Your task to perform on an android device: Open the stopwatch Image 0: 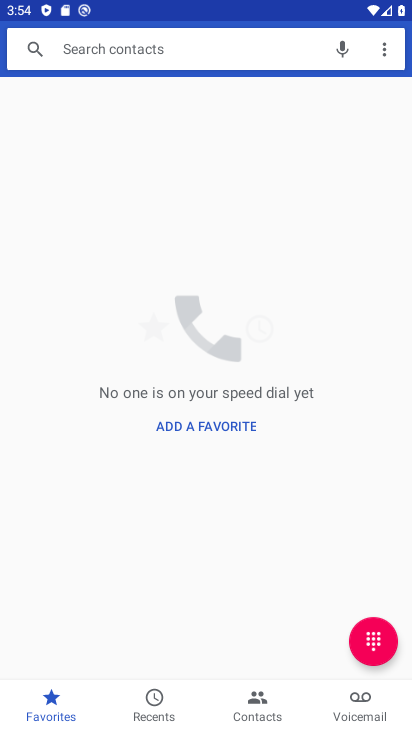
Step 0: press back button
Your task to perform on an android device: Open the stopwatch Image 1: 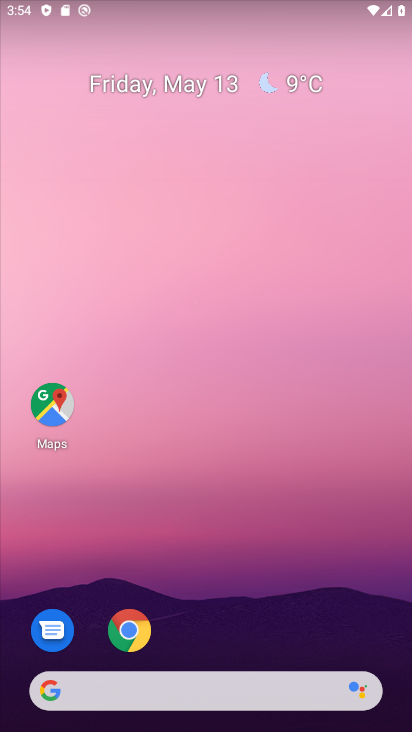
Step 1: drag from (254, 585) to (191, 16)
Your task to perform on an android device: Open the stopwatch Image 2: 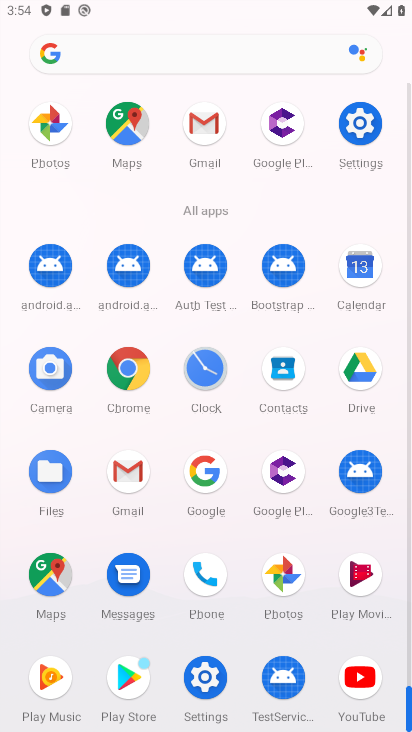
Step 2: drag from (10, 571) to (30, 272)
Your task to perform on an android device: Open the stopwatch Image 3: 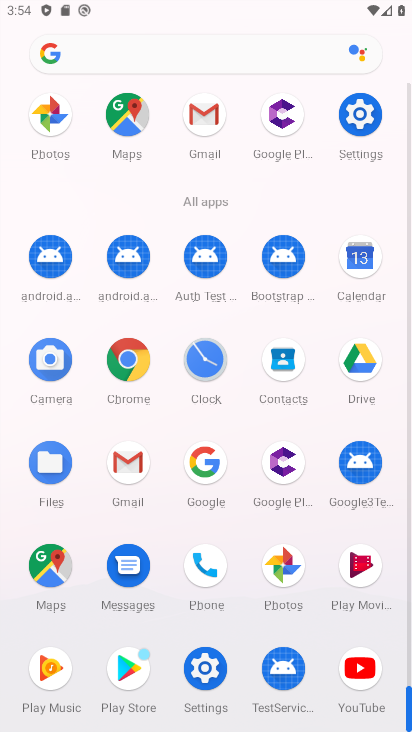
Step 3: click (209, 357)
Your task to perform on an android device: Open the stopwatch Image 4: 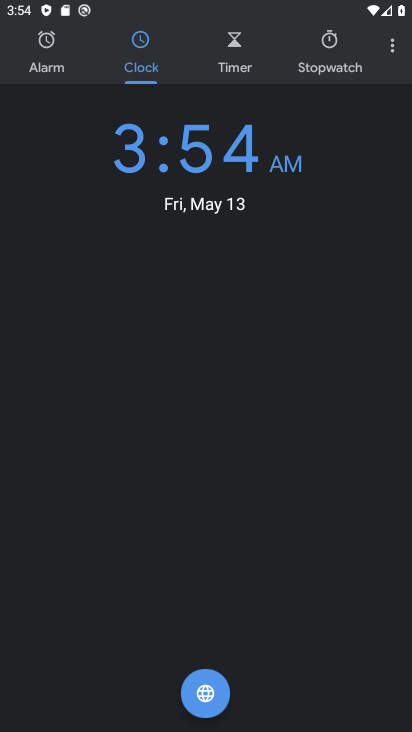
Step 4: click (320, 57)
Your task to perform on an android device: Open the stopwatch Image 5: 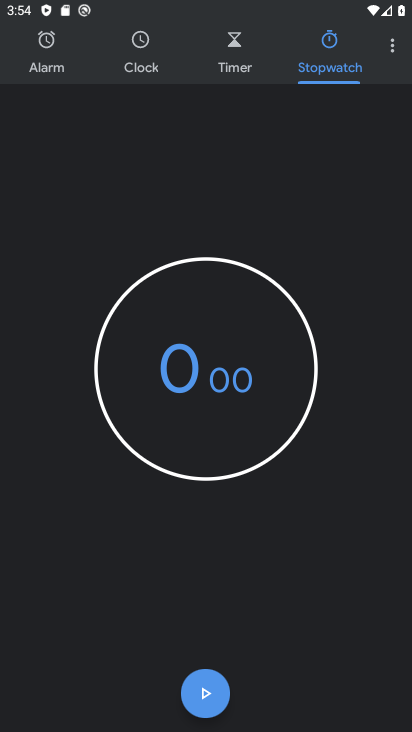
Step 5: task complete